Your task to perform on an android device: Go to wifi settings Image 0: 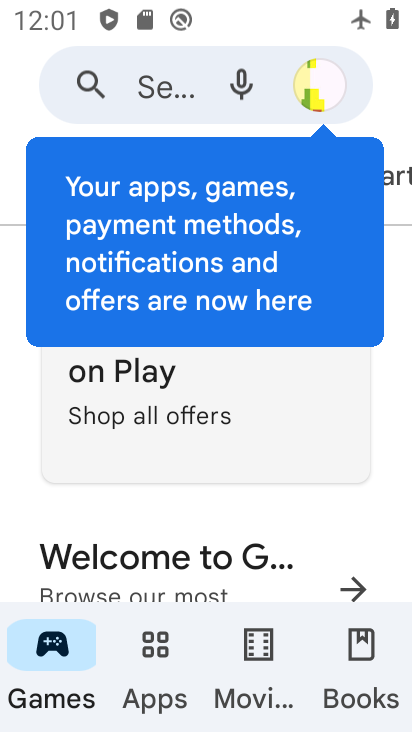
Step 0: press home button
Your task to perform on an android device: Go to wifi settings Image 1: 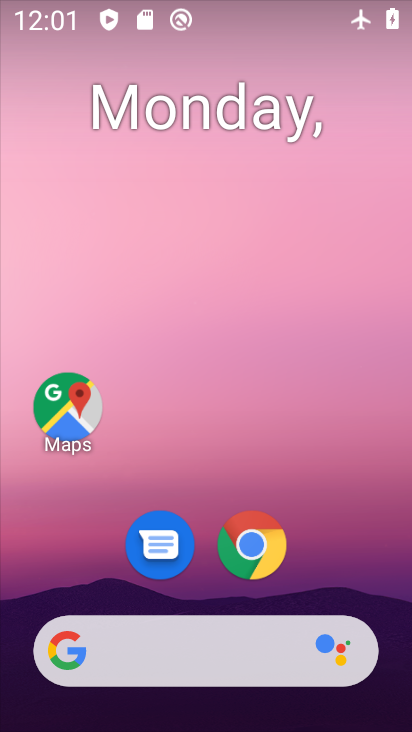
Step 1: drag from (365, 575) to (375, 238)
Your task to perform on an android device: Go to wifi settings Image 2: 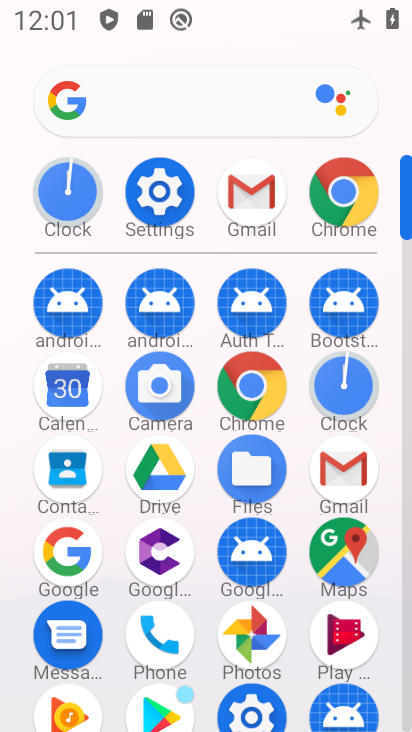
Step 2: click (157, 218)
Your task to perform on an android device: Go to wifi settings Image 3: 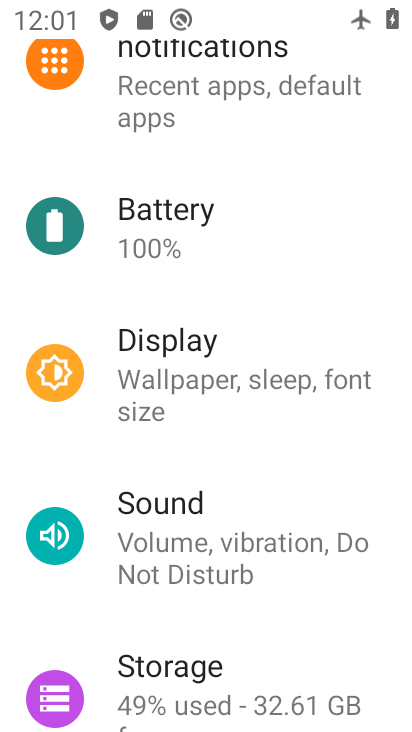
Step 3: drag from (331, 220) to (332, 327)
Your task to perform on an android device: Go to wifi settings Image 4: 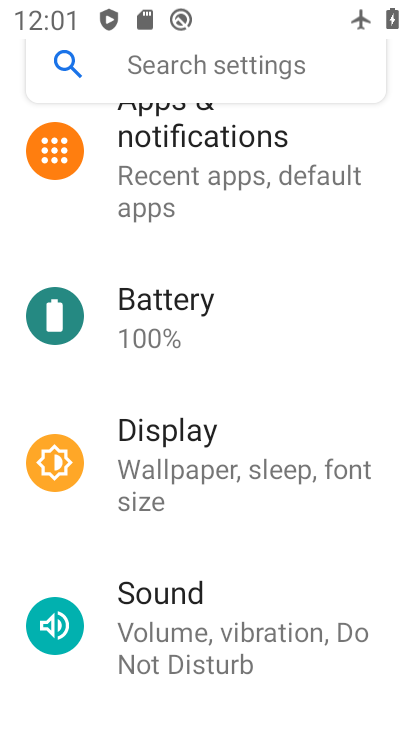
Step 4: drag from (360, 204) to (351, 355)
Your task to perform on an android device: Go to wifi settings Image 5: 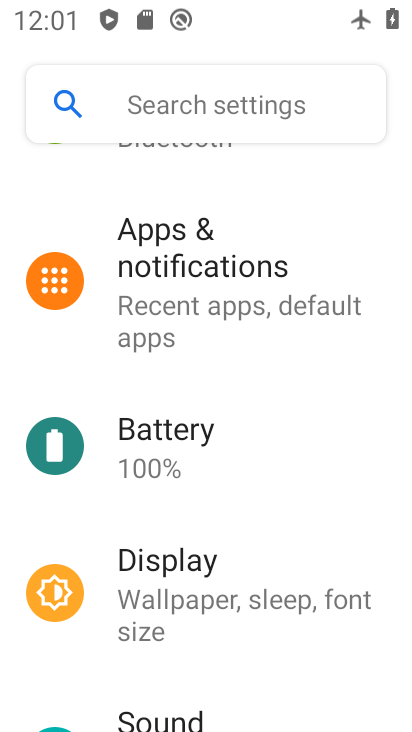
Step 5: drag from (356, 198) to (328, 413)
Your task to perform on an android device: Go to wifi settings Image 6: 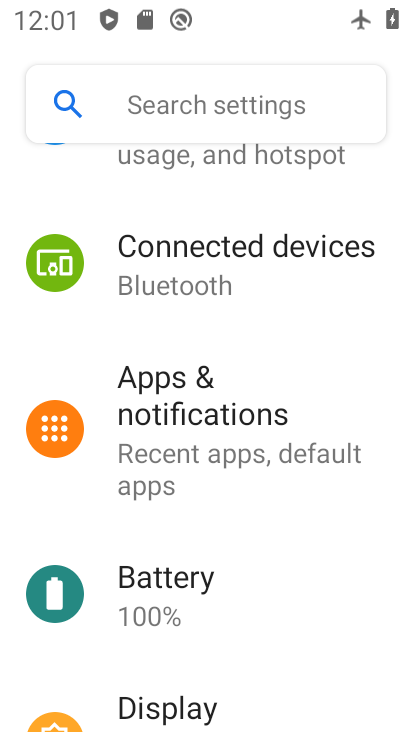
Step 6: drag from (343, 183) to (317, 373)
Your task to perform on an android device: Go to wifi settings Image 7: 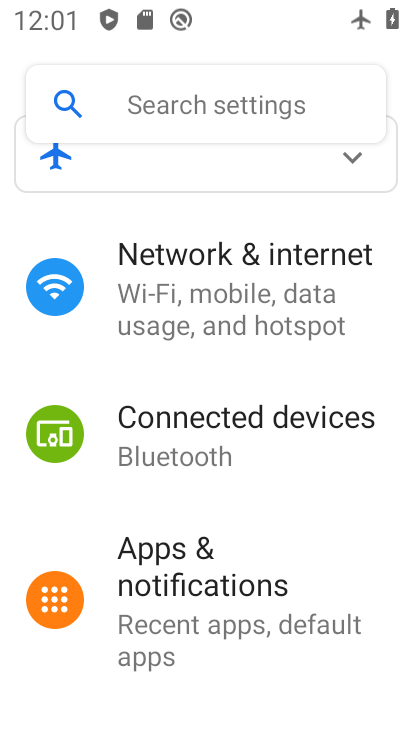
Step 7: click (288, 298)
Your task to perform on an android device: Go to wifi settings Image 8: 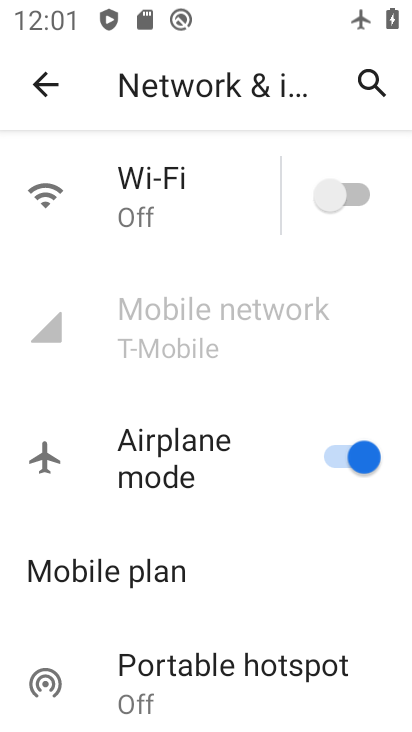
Step 8: click (205, 196)
Your task to perform on an android device: Go to wifi settings Image 9: 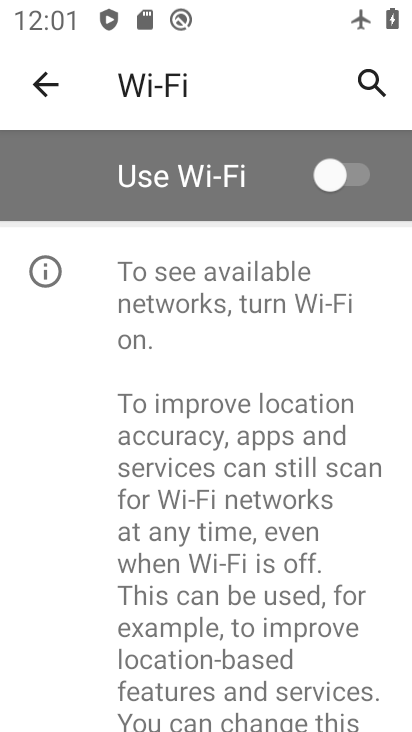
Step 9: task complete